Your task to perform on an android device: Search for the best rated coffee table on Target. Image 0: 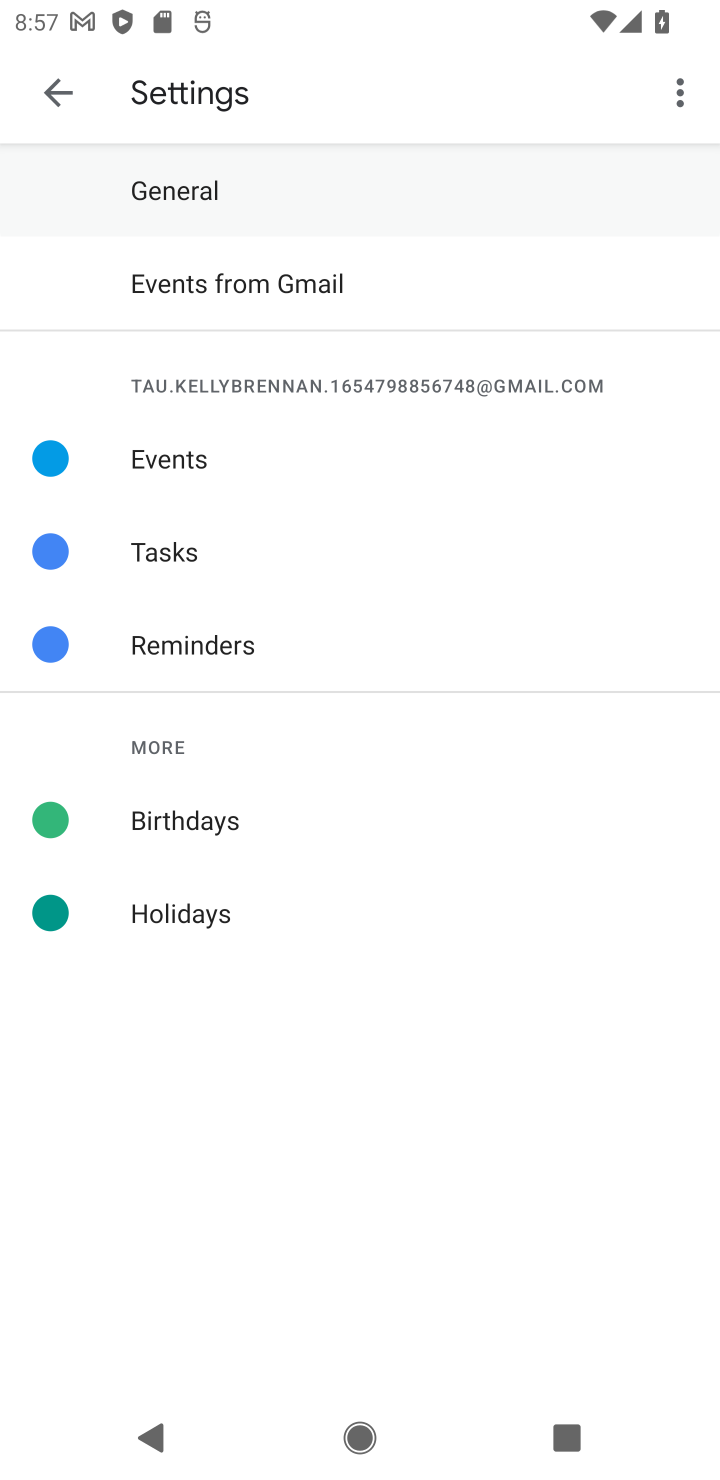
Step 0: press home button
Your task to perform on an android device: Search for the best rated coffee table on Target. Image 1: 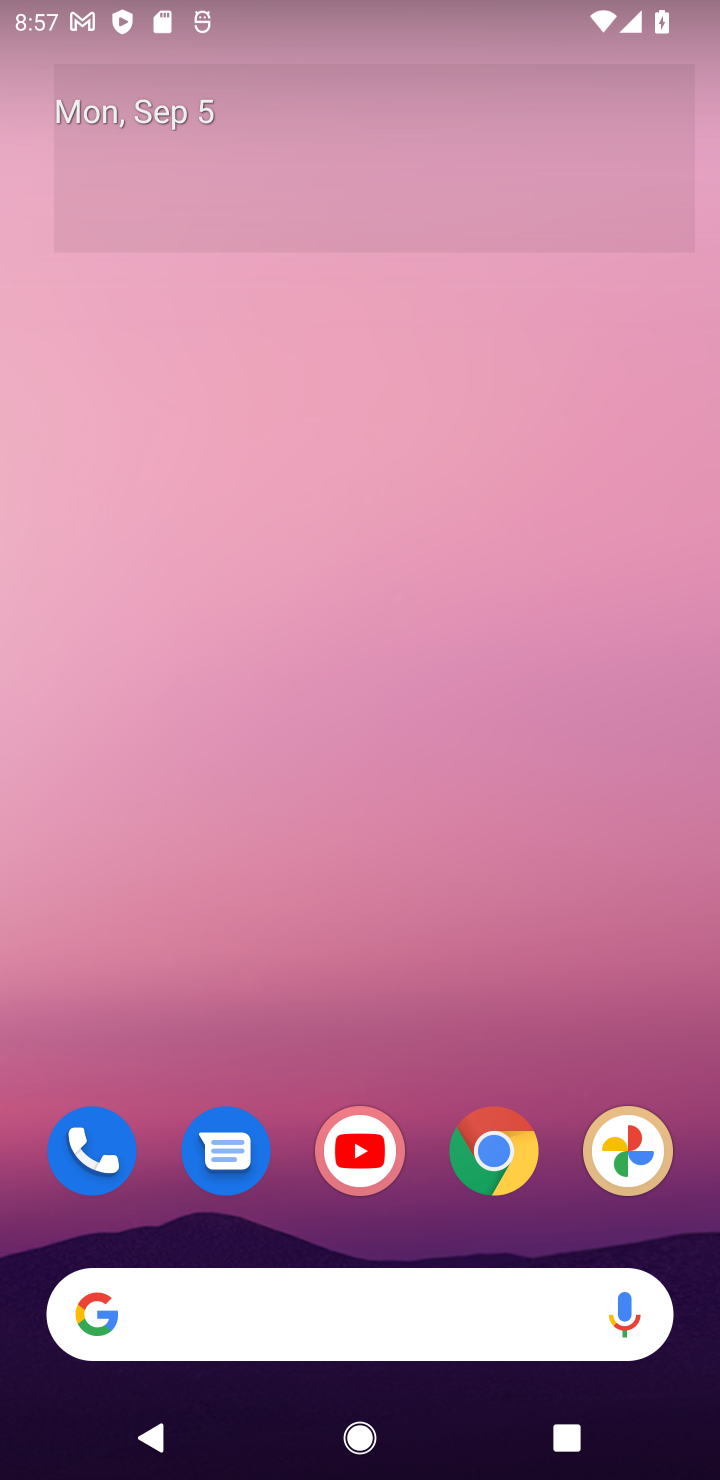
Step 1: click (428, 188)
Your task to perform on an android device: Search for the best rated coffee table on Target. Image 2: 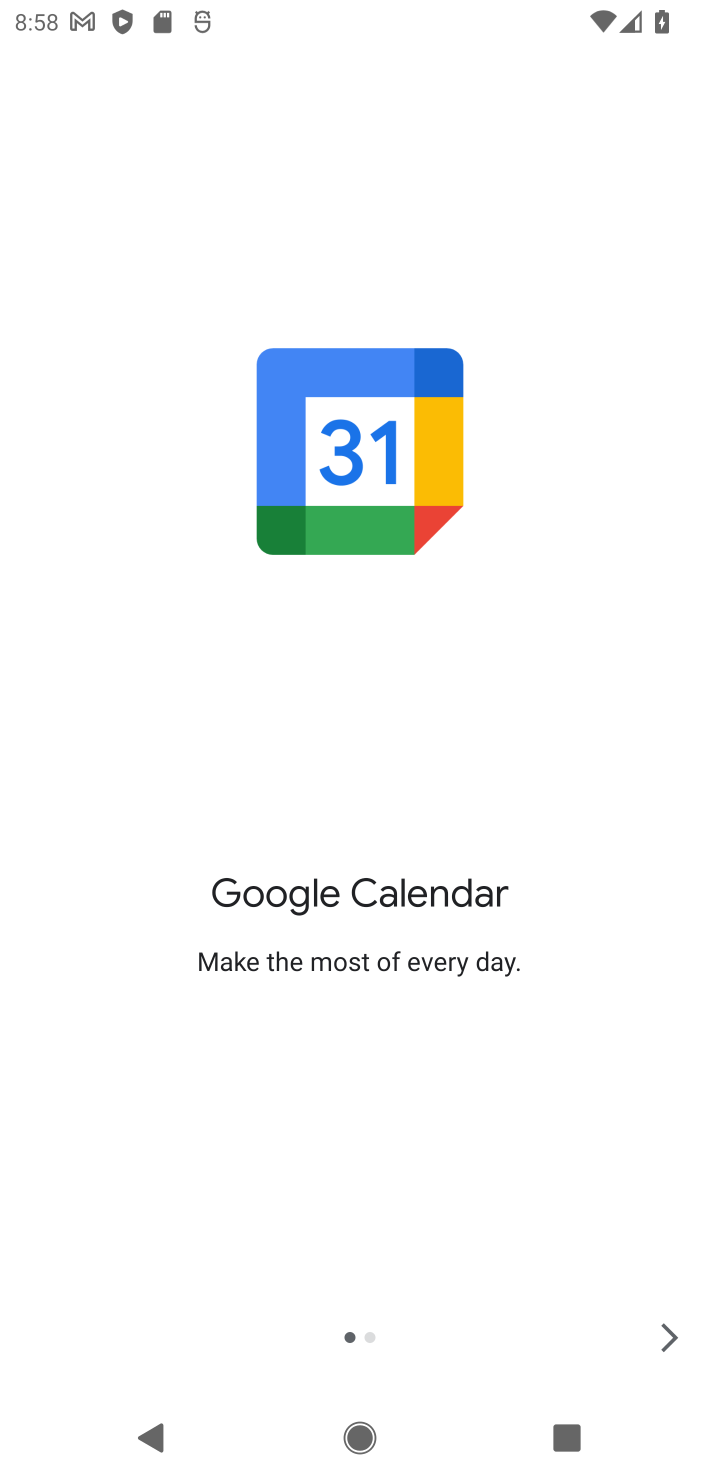
Step 2: press home button
Your task to perform on an android device: Search for the best rated coffee table on Target. Image 3: 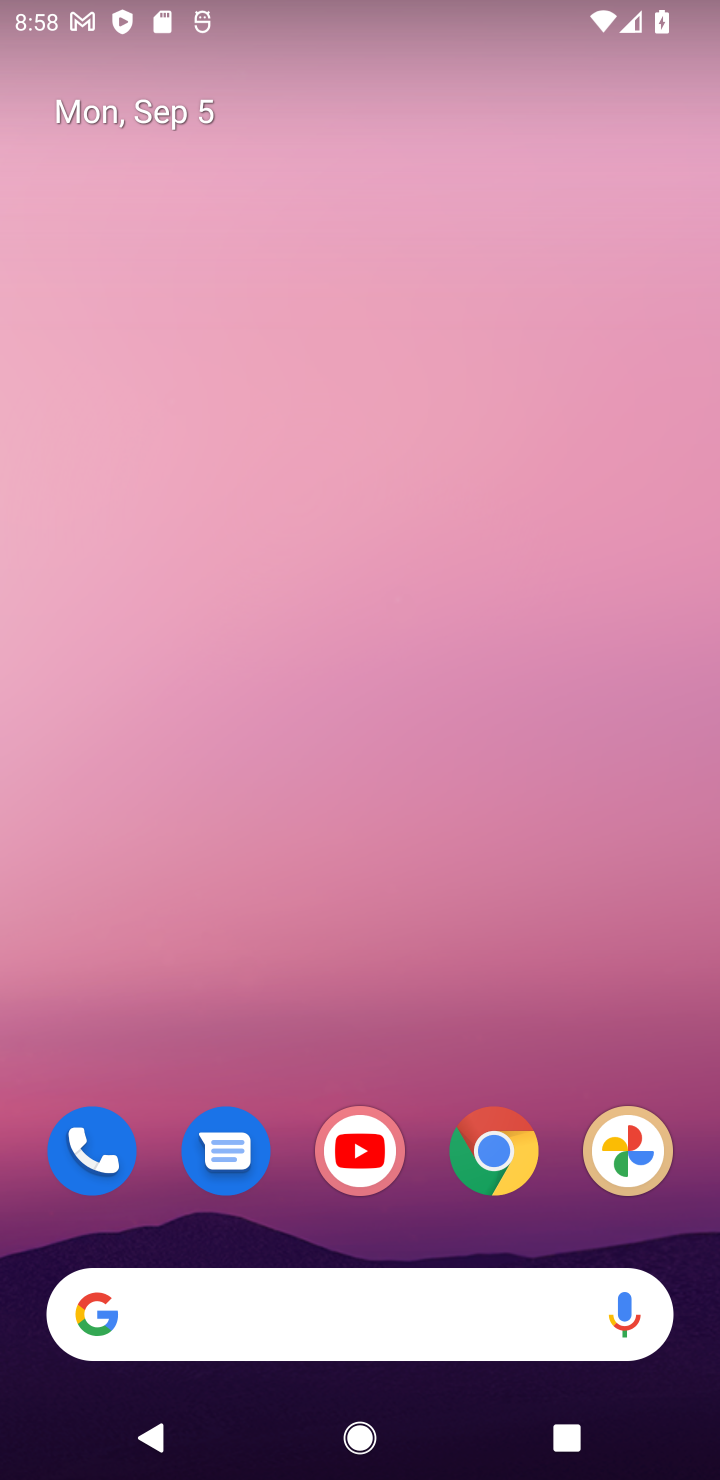
Step 3: drag from (404, 1103) to (499, 0)
Your task to perform on an android device: Search for the best rated coffee table on Target. Image 4: 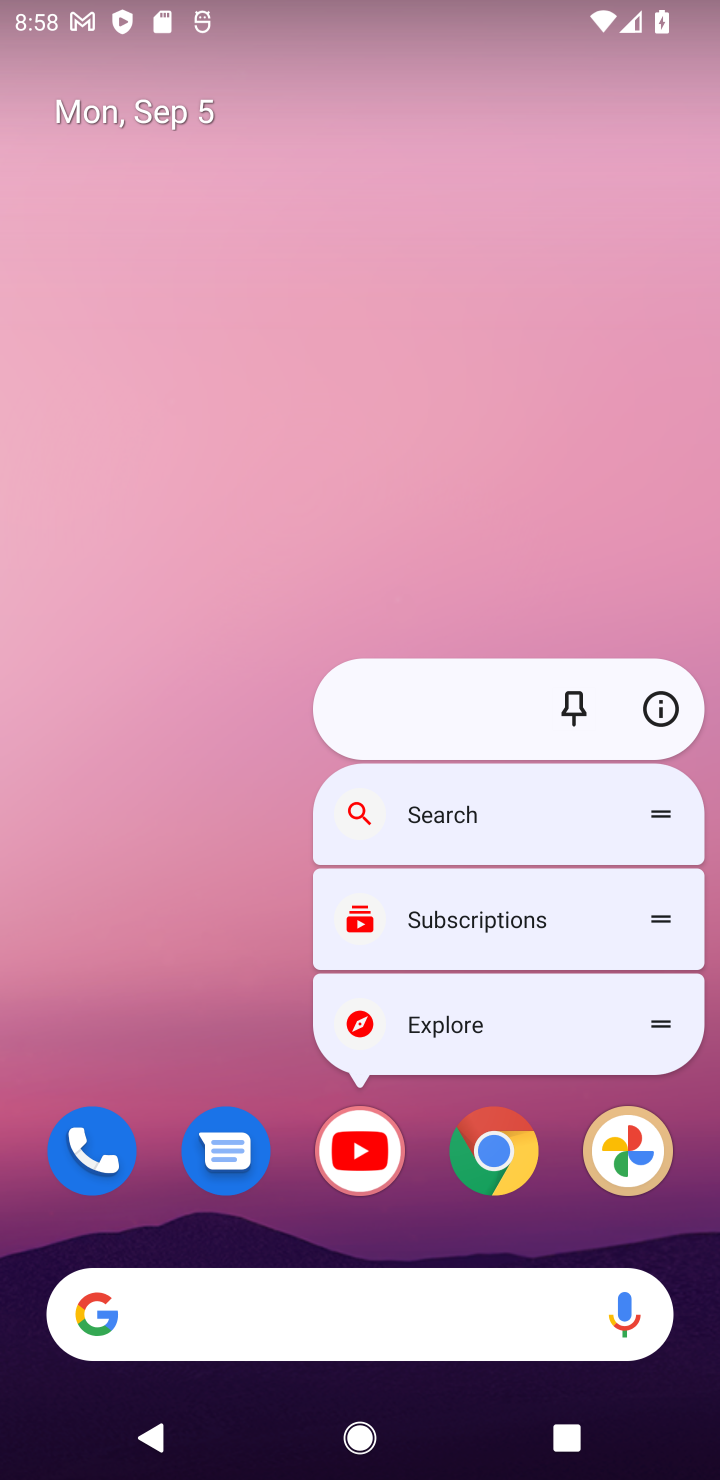
Step 4: click (481, 344)
Your task to perform on an android device: Search for the best rated coffee table on Target. Image 5: 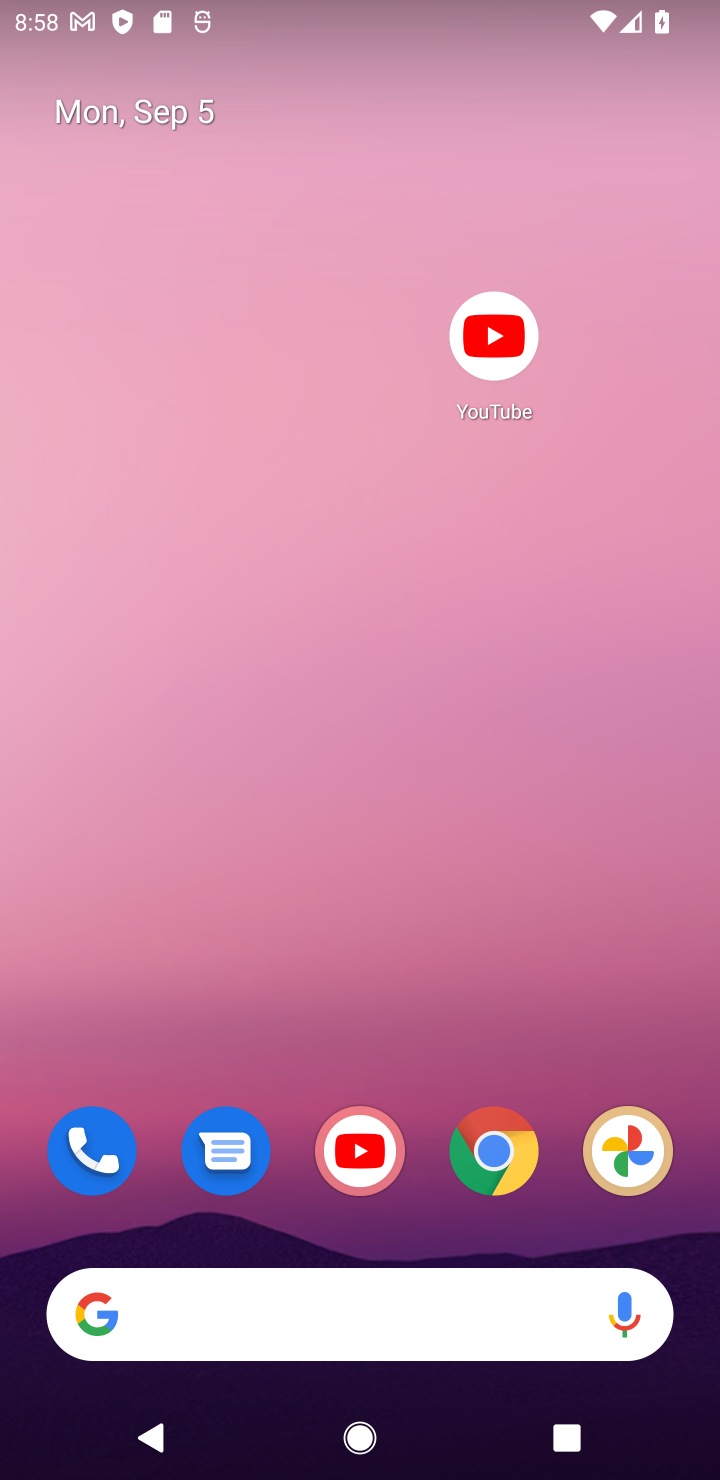
Step 5: click (494, 1155)
Your task to perform on an android device: Search for the best rated coffee table on Target. Image 6: 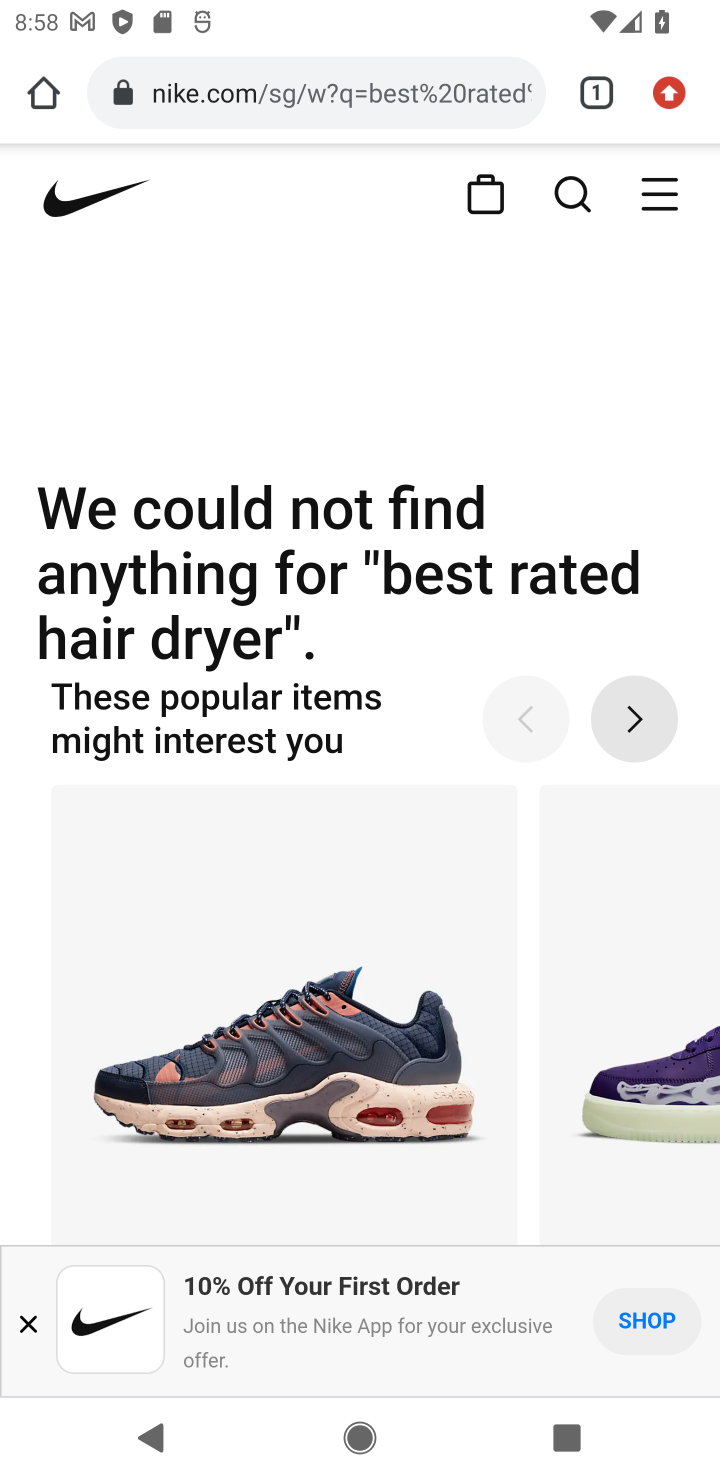
Step 6: click (266, 110)
Your task to perform on an android device: Search for the best rated coffee table on Target. Image 7: 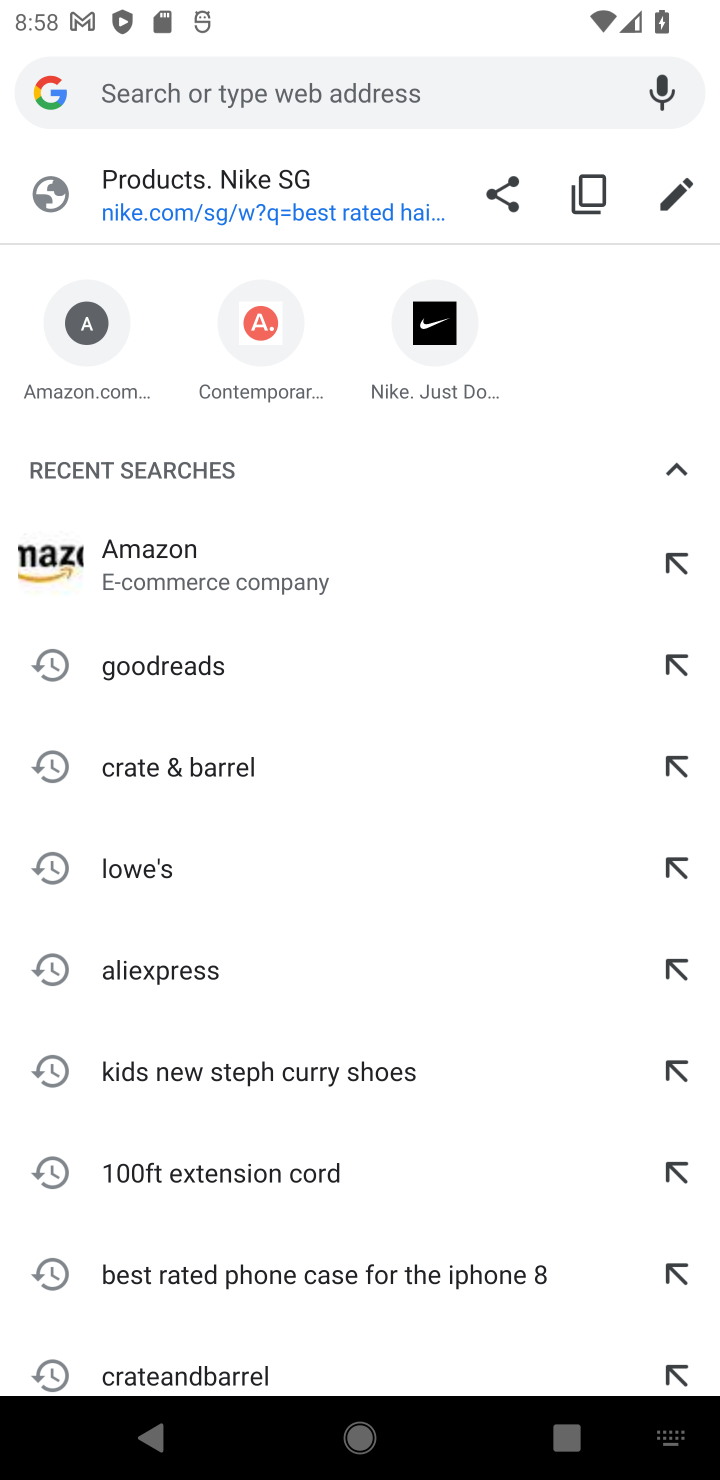
Step 7: type "Target"
Your task to perform on an android device: Search for the best rated coffee table on Target. Image 8: 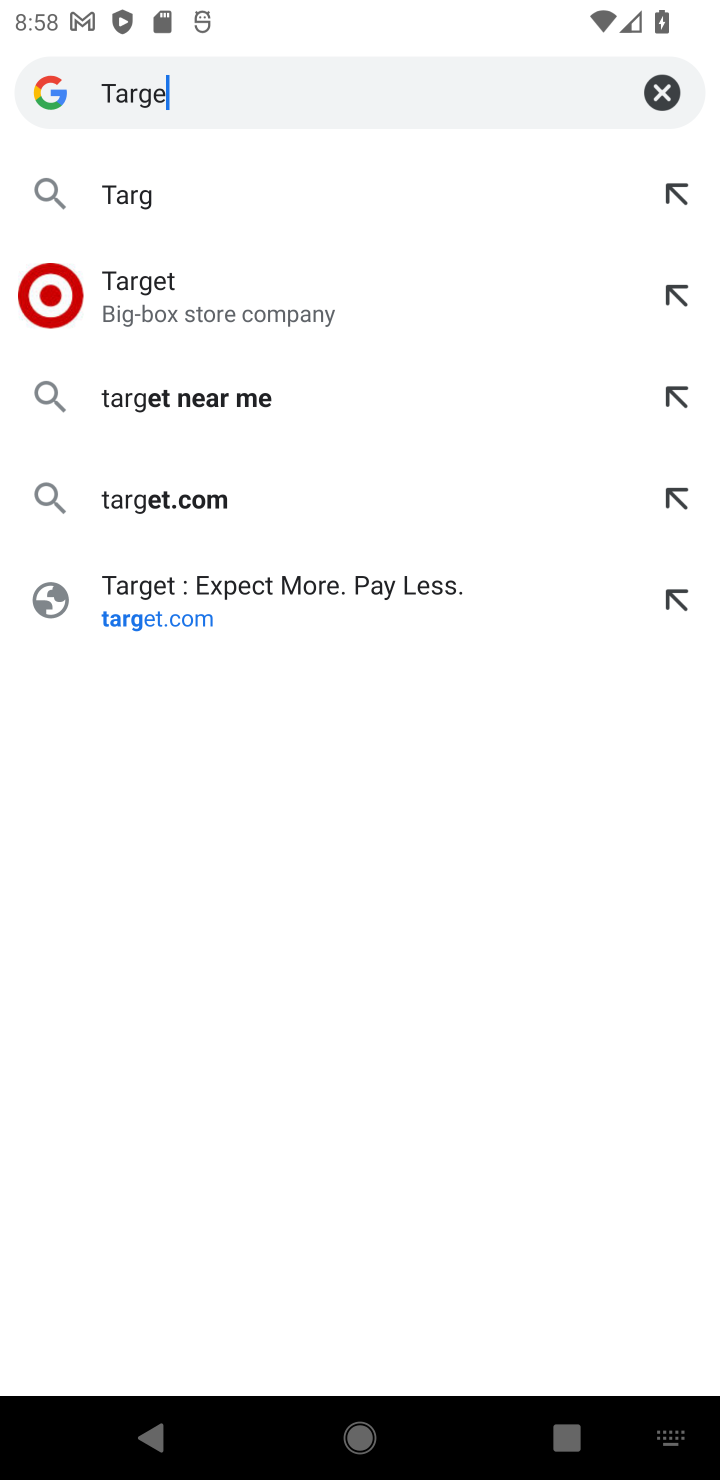
Step 8: press enter
Your task to perform on an android device: Search for the best rated coffee table on Target. Image 9: 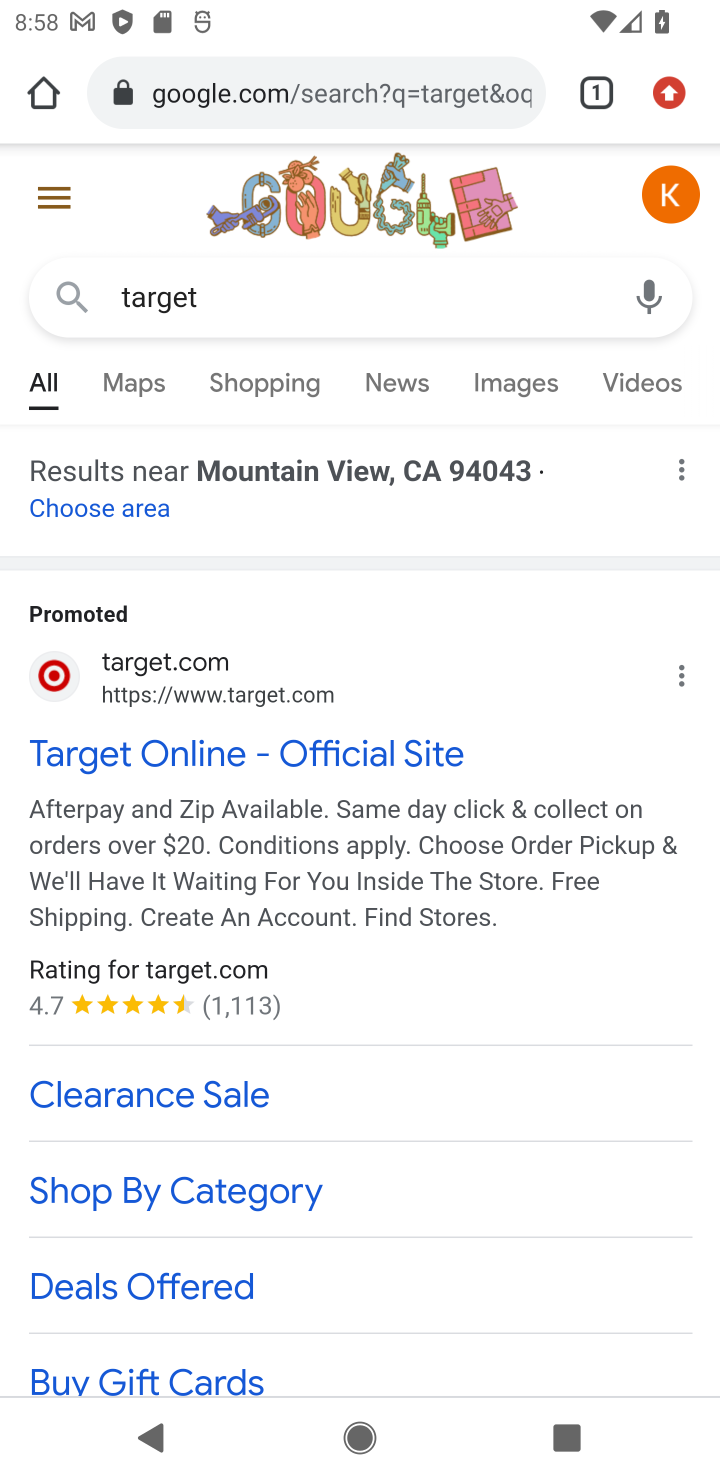
Step 9: click (140, 682)
Your task to perform on an android device: Search for the best rated coffee table on Target. Image 10: 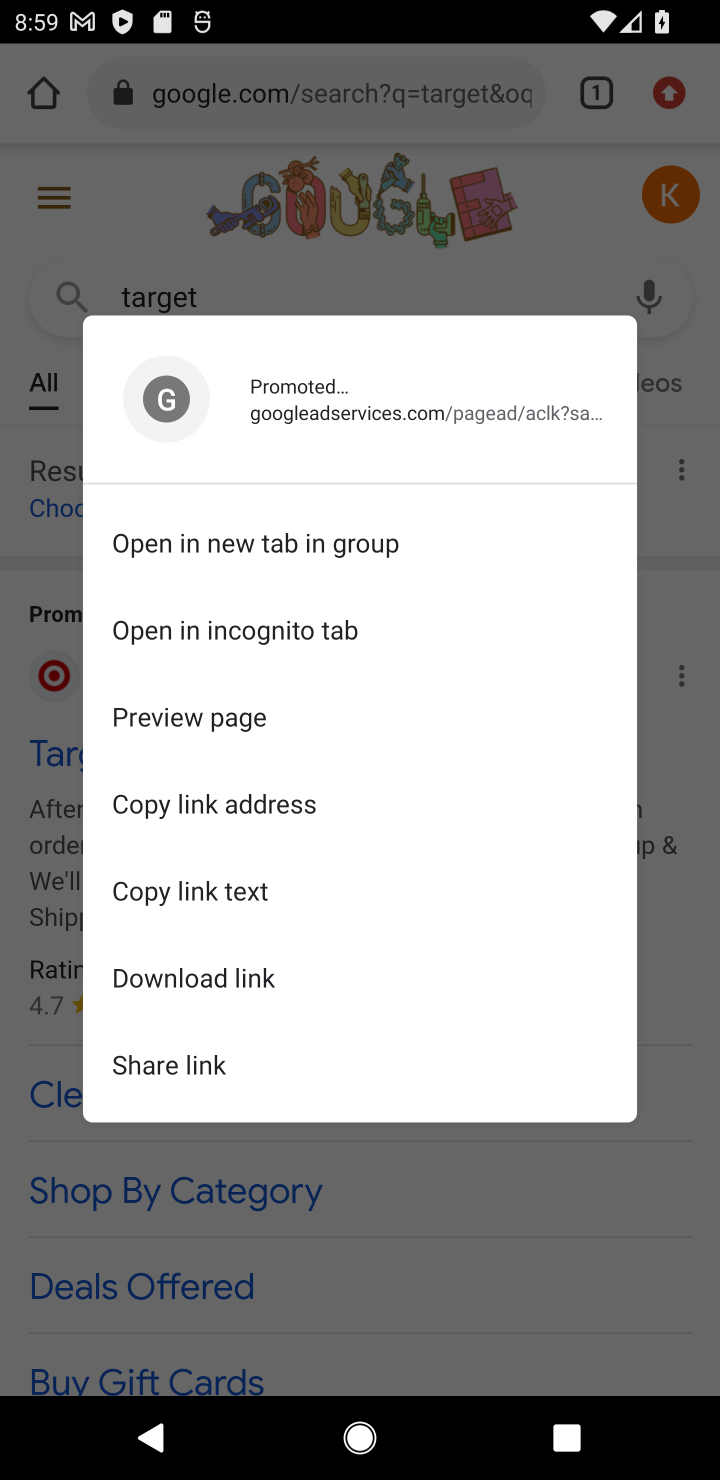
Step 10: click (665, 574)
Your task to perform on an android device: Search for the best rated coffee table on Target. Image 11: 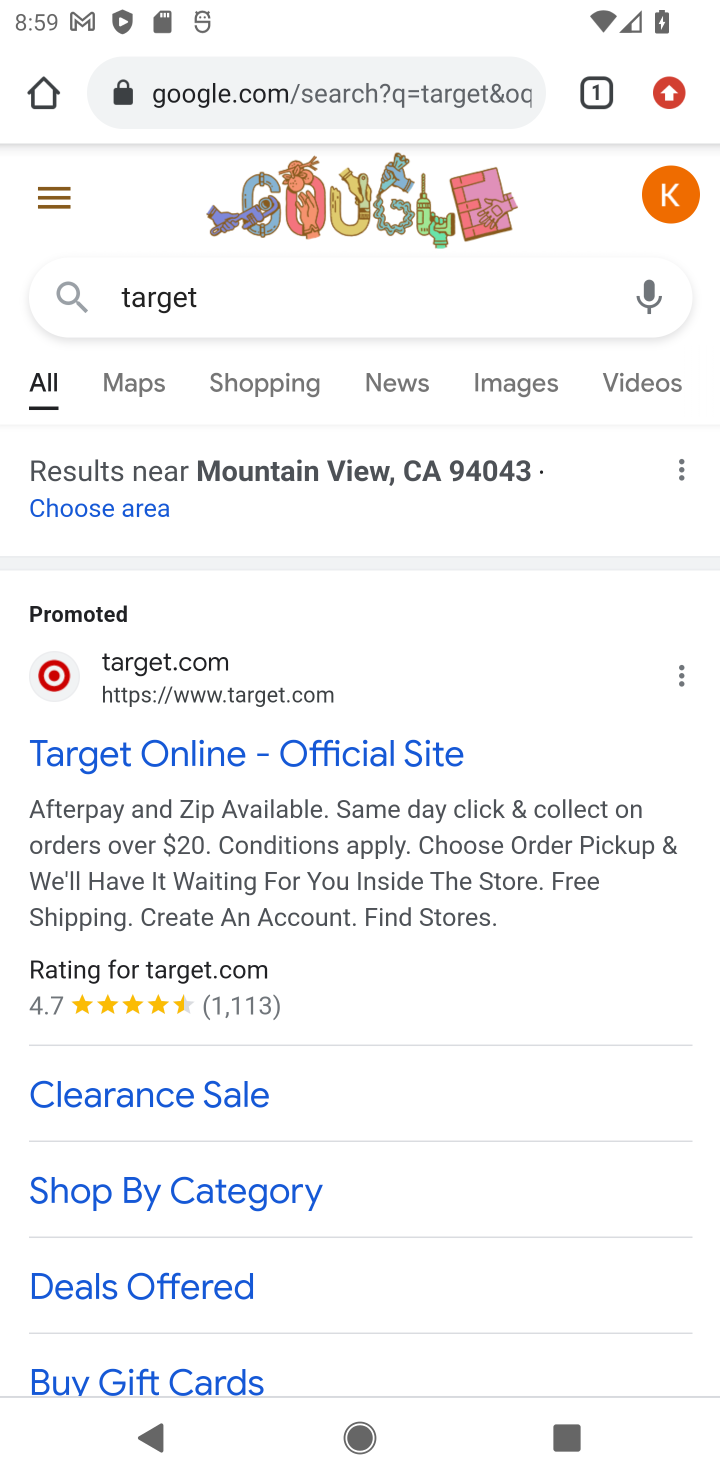
Step 11: click (173, 686)
Your task to perform on an android device: Search for the best rated coffee table on Target. Image 12: 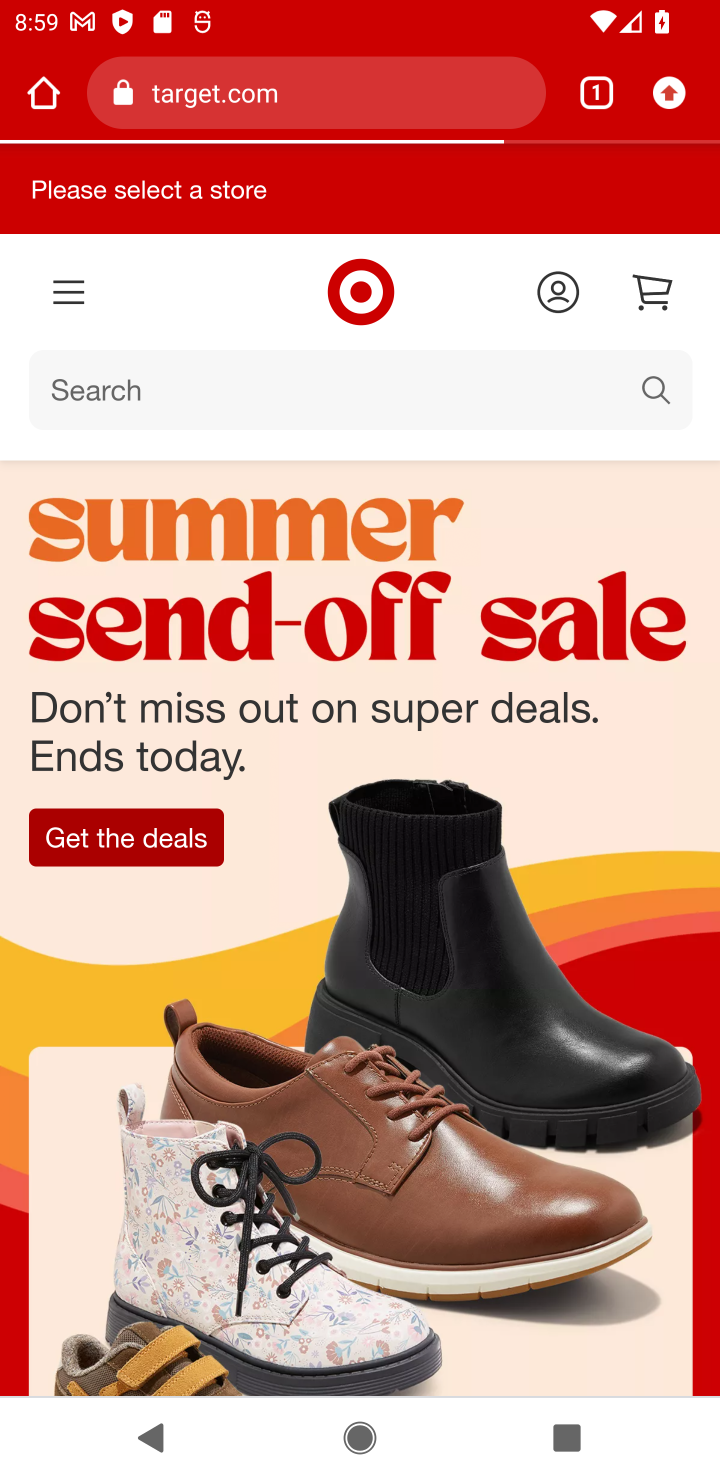
Step 12: click (564, 433)
Your task to perform on an android device: Search for the best rated coffee table on Target. Image 13: 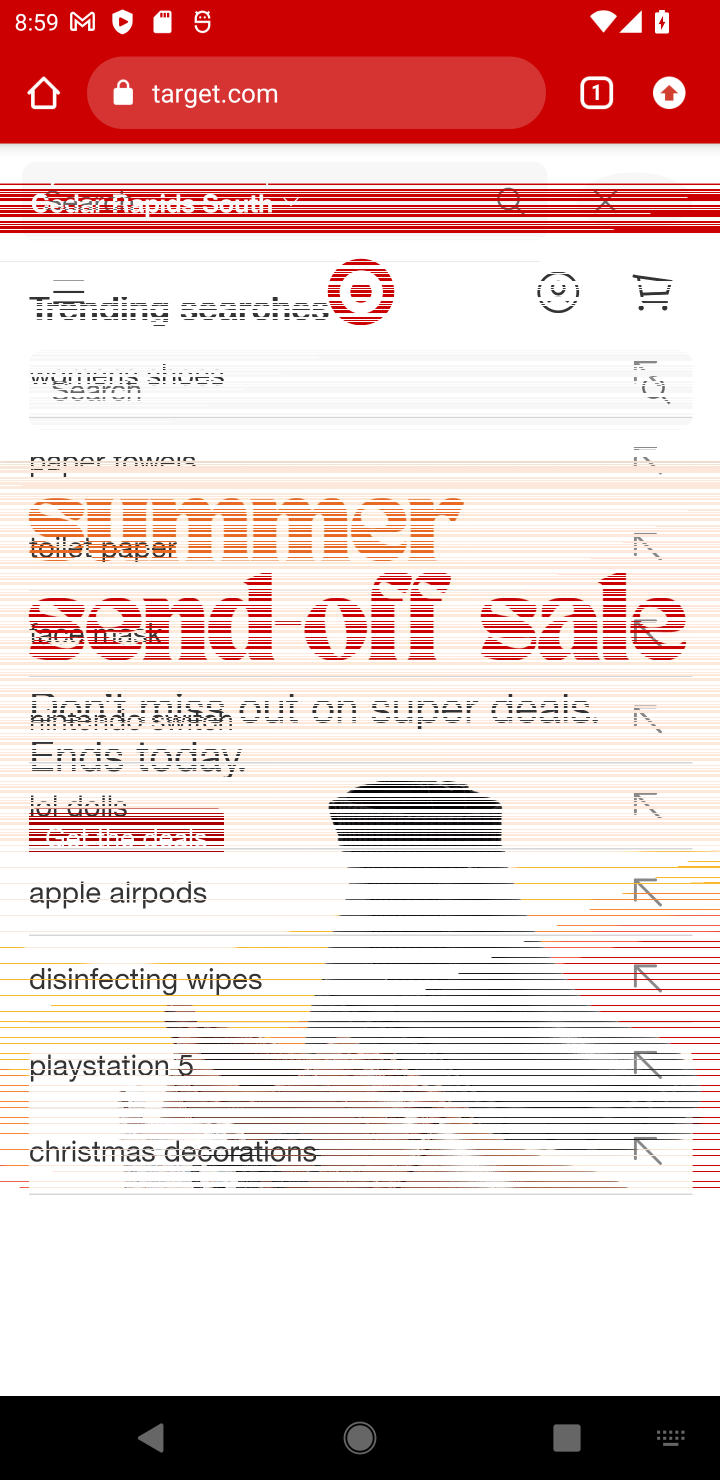
Step 13: type " the best rated coffee table"
Your task to perform on an android device: Search for the best rated coffee table on Target. Image 14: 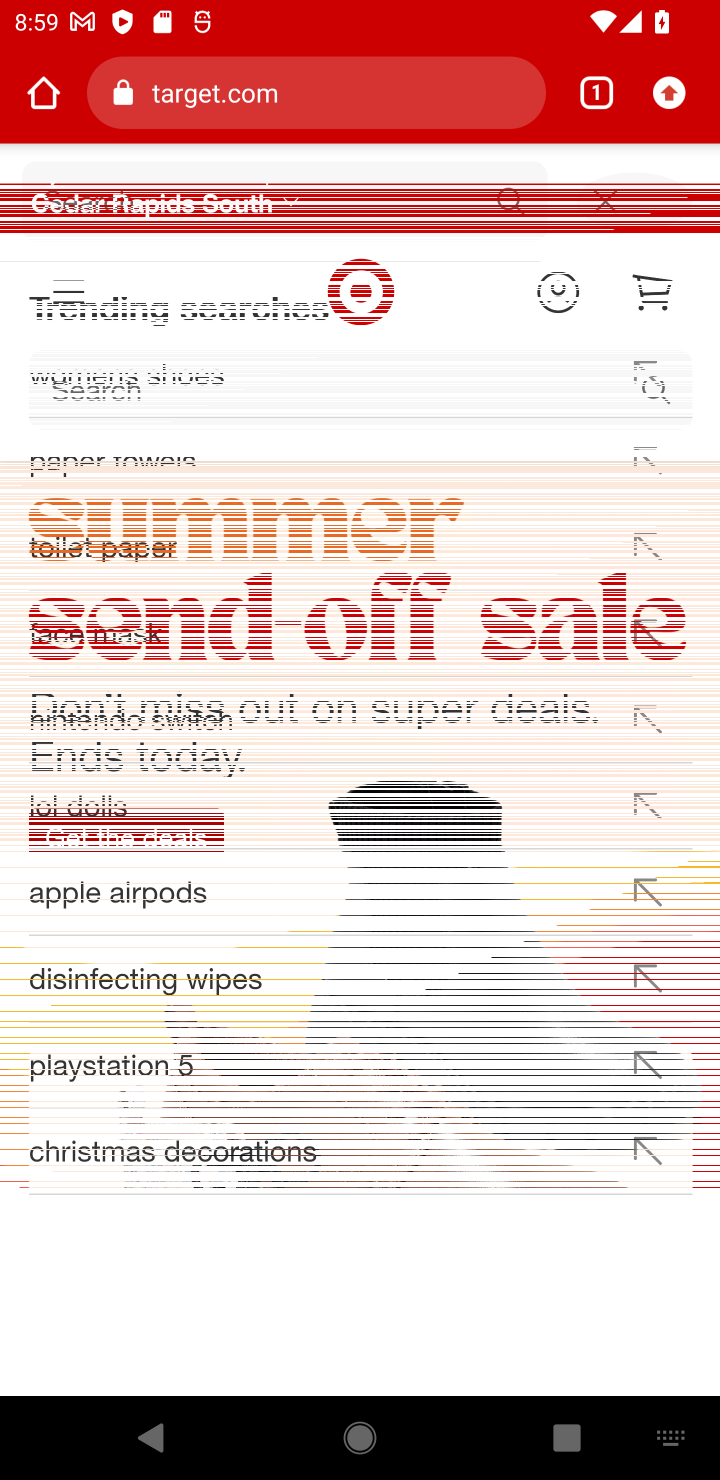
Step 14: press enter
Your task to perform on an android device: Search for the best rated coffee table on Target. Image 15: 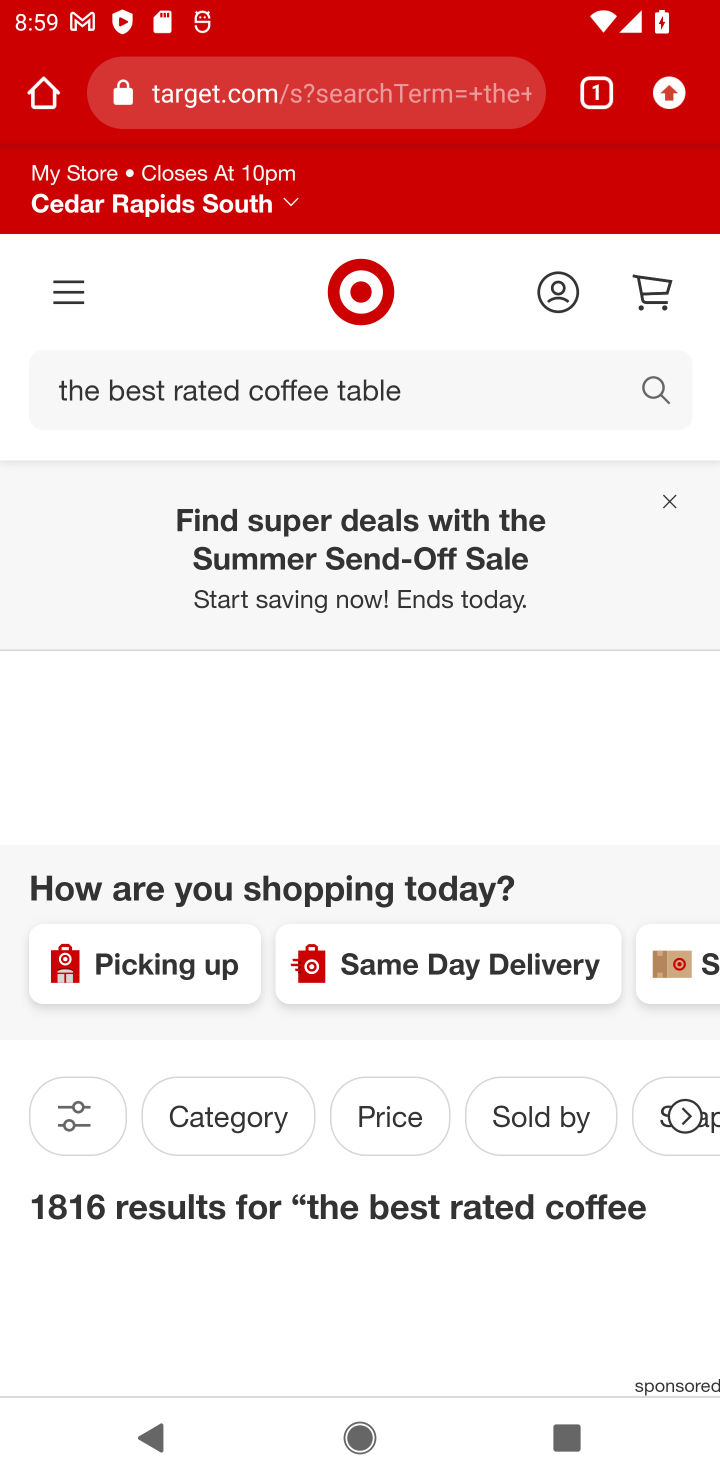
Step 15: task complete